Your task to perform on an android device: Go to internet settings Image 0: 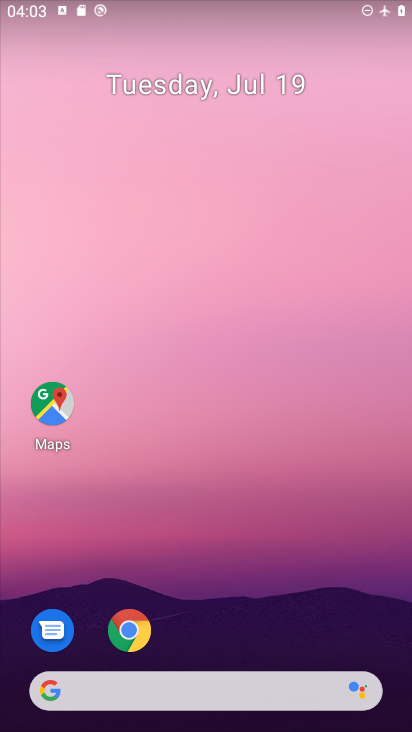
Step 0: drag from (353, 636) to (292, 80)
Your task to perform on an android device: Go to internet settings Image 1: 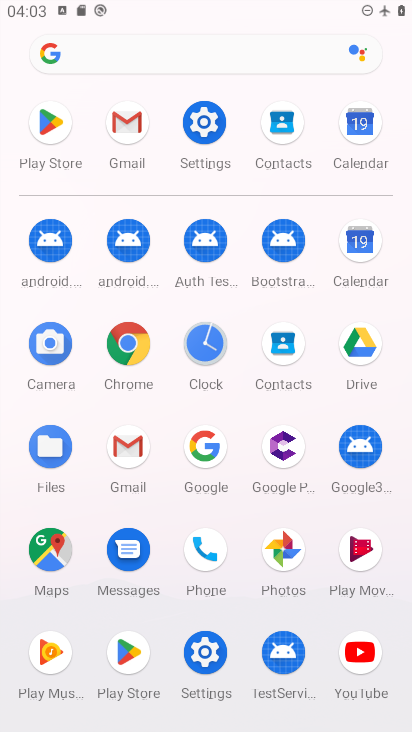
Step 1: click (206, 656)
Your task to perform on an android device: Go to internet settings Image 2: 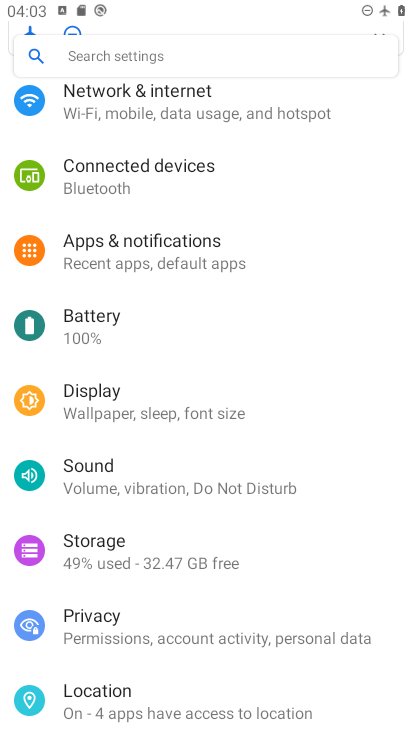
Step 2: click (99, 97)
Your task to perform on an android device: Go to internet settings Image 3: 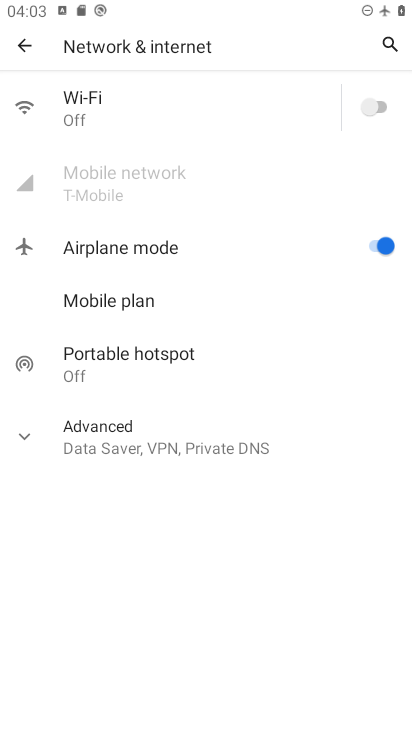
Step 3: click (79, 100)
Your task to perform on an android device: Go to internet settings Image 4: 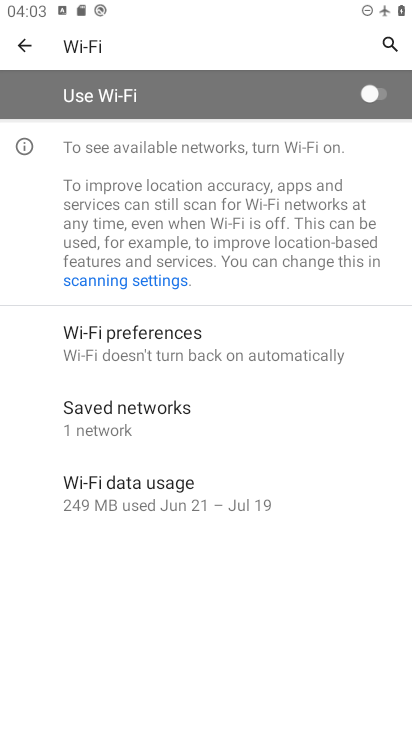
Step 4: task complete